Your task to perform on an android device: Go to battery settings Image 0: 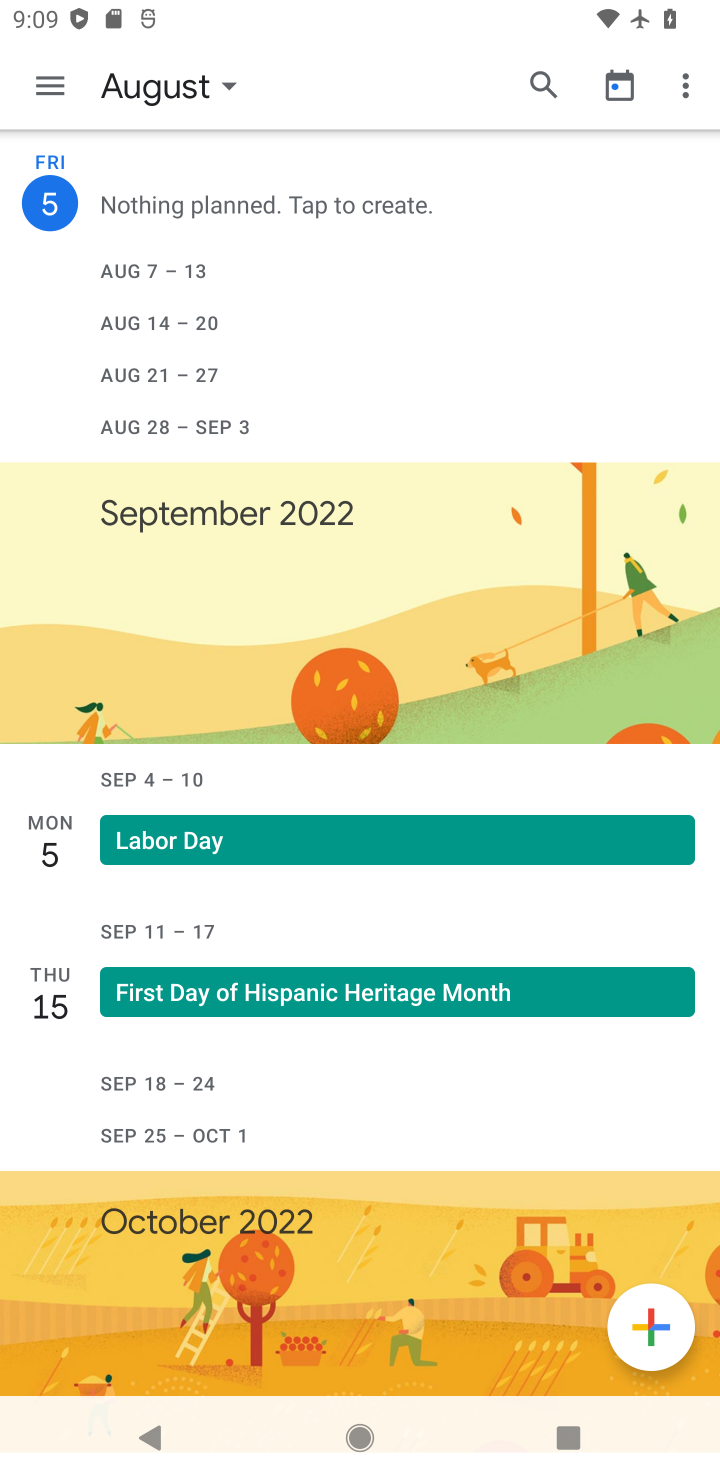
Step 0: press home button
Your task to perform on an android device: Go to battery settings Image 1: 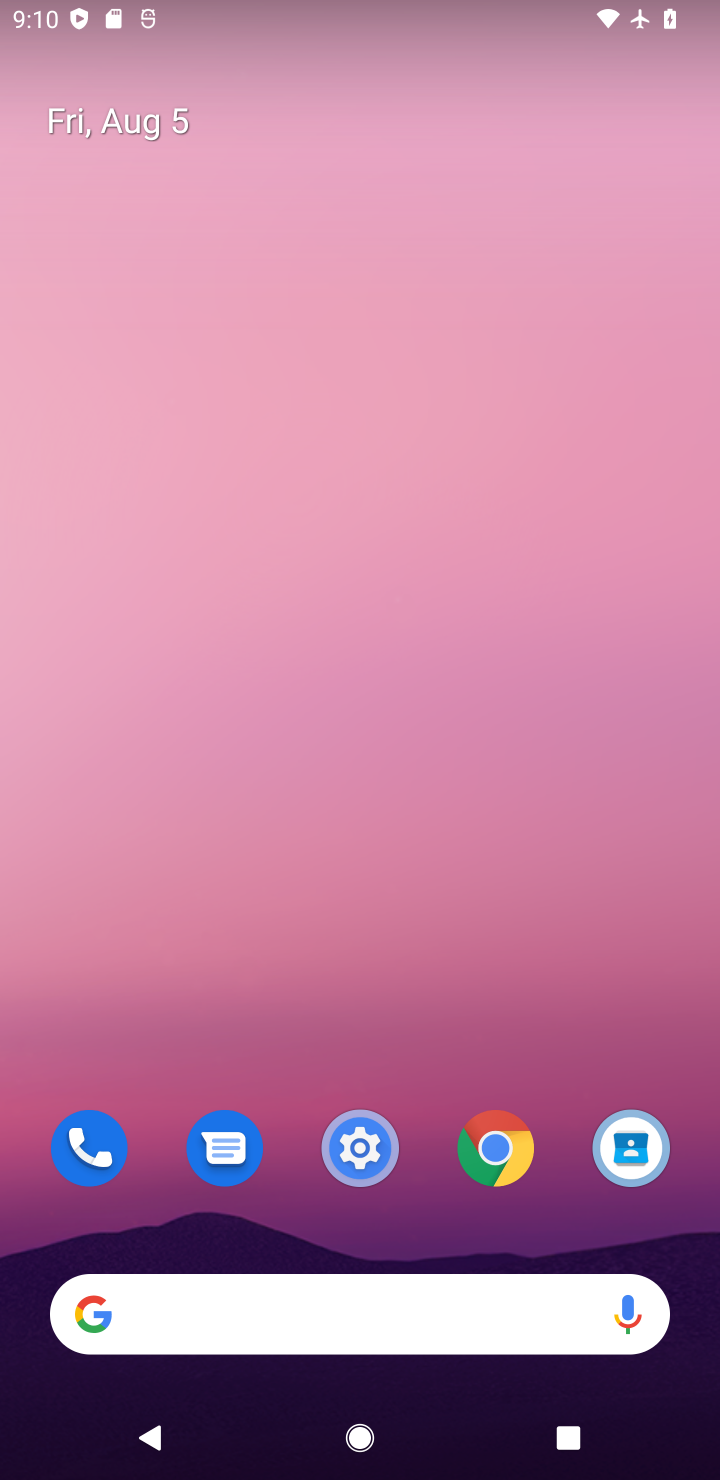
Step 1: click (337, 1136)
Your task to perform on an android device: Go to battery settings Image 2: 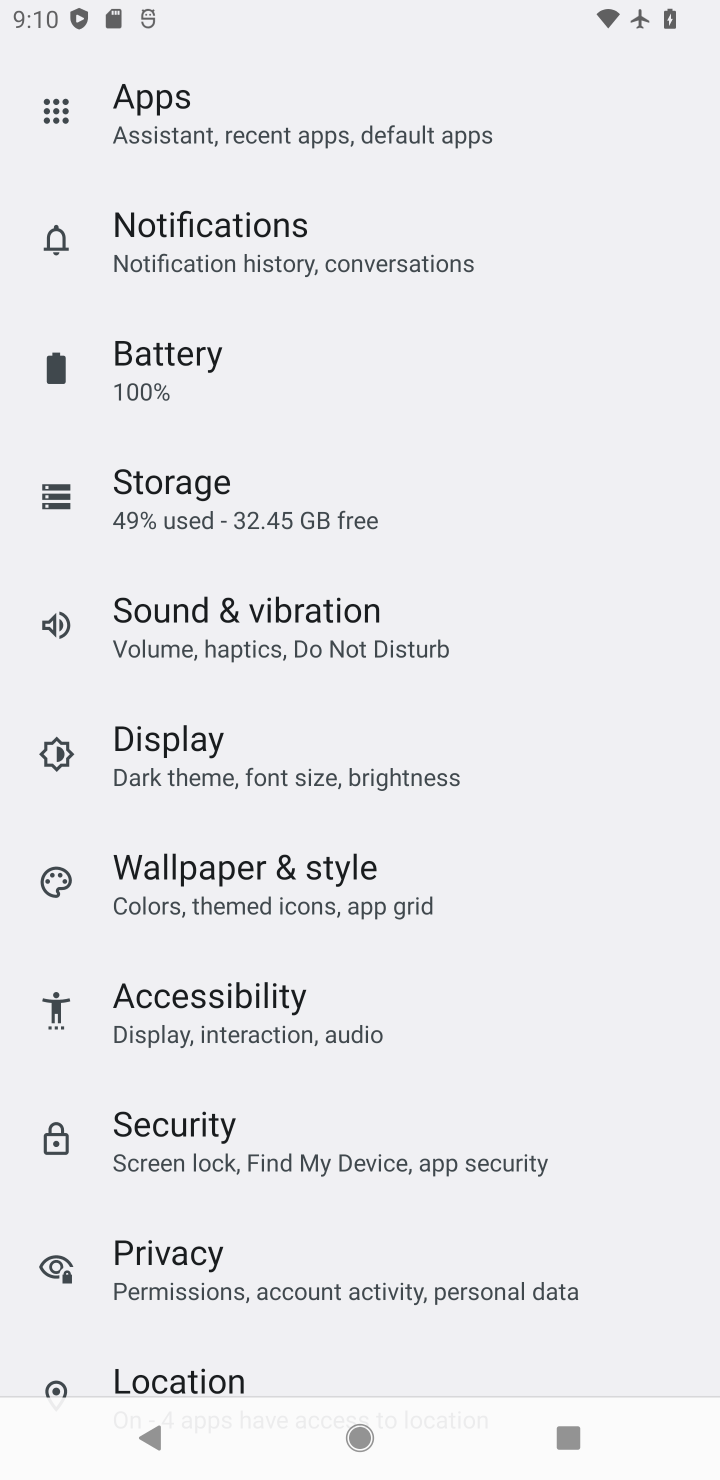
Step 2: click (253, 372)
Your task to perform on an android device: Go to battery settings Image 3: 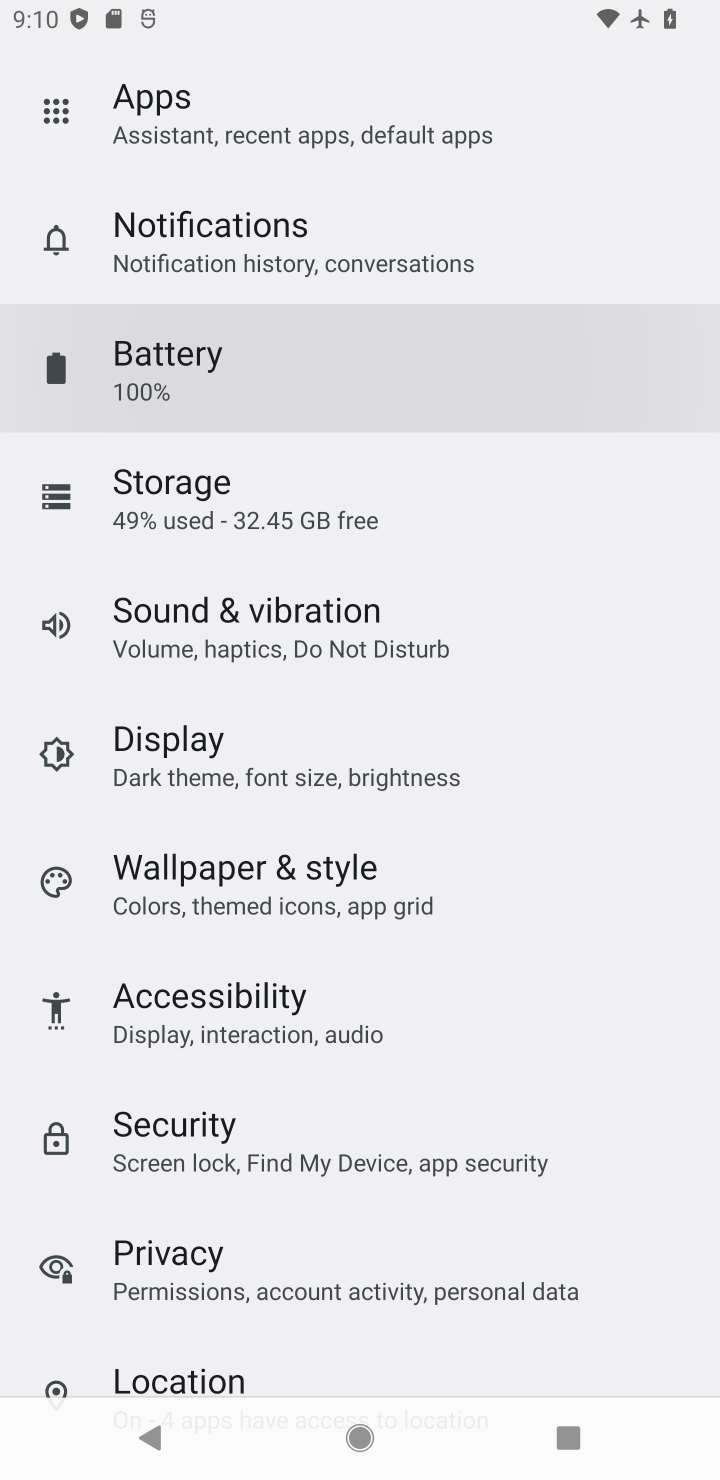
Step 3: task complete